Your task to perform on an android device: turn vacation reply on in the gmail app Image 0: 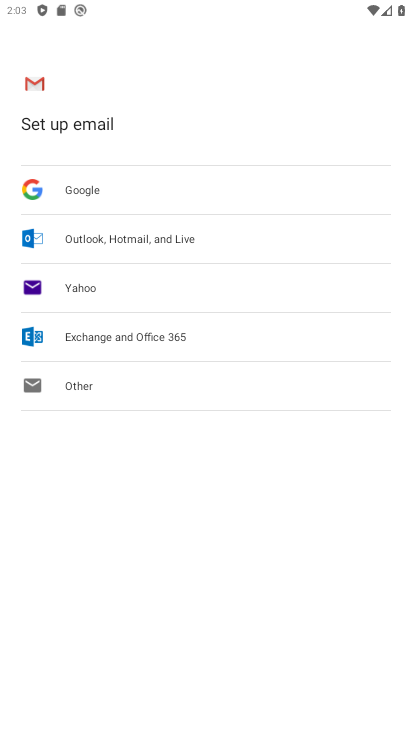
Step 0: press home button
Your task to perform on an android device: turn vacation reply on in the gmail app Image 1: 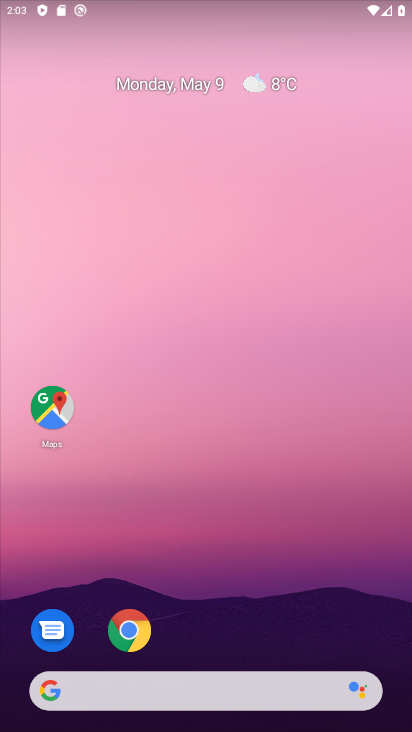
Step 1: drag from (268, 537) to (291, 150)
Your task to perform on an android device: turn vacation reply on in the gmail app Image 2: 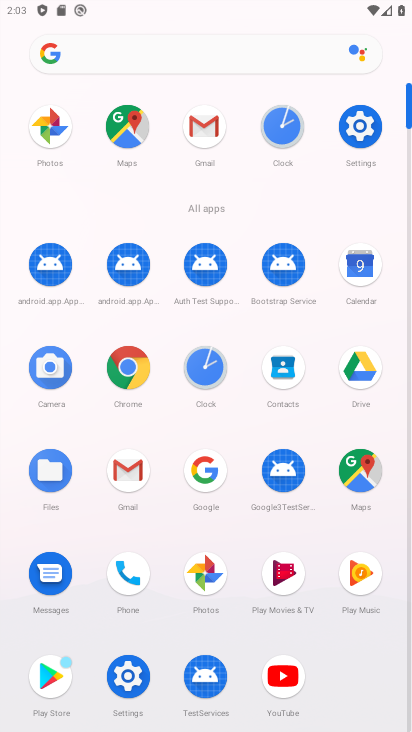
Step 2: click (129, 688)
Your task to perform on an android device: turn vacation reply on in the gmail app Image 3: 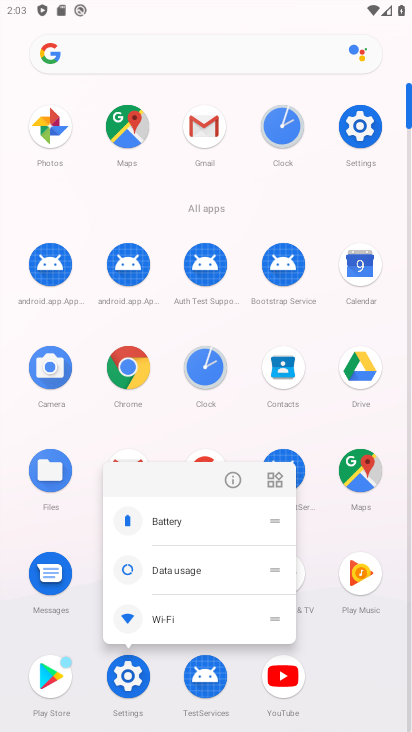
Step 3: click (124, 454)
Your task to perform on an android device: turn vacation reply on in the gmail app Image 4: 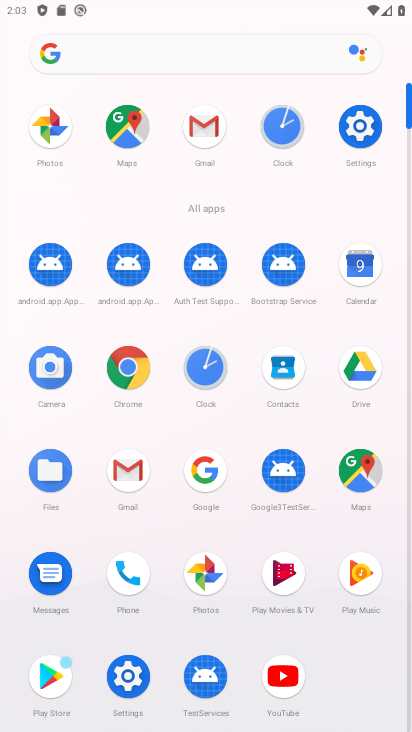
Step 4: click (133, 472)
Your task to perform on an android device: turn vacation reply on in the gmail app Image 5: 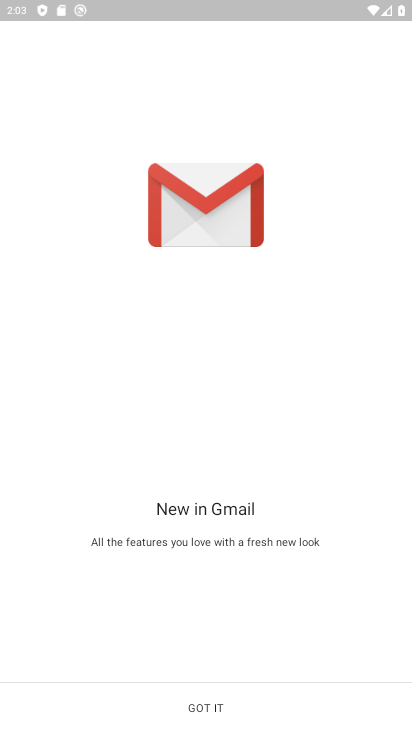
Step 5: click (241, 717)
Your task to perform on an android device: turn vacation reply on in the gmail app Image 6: 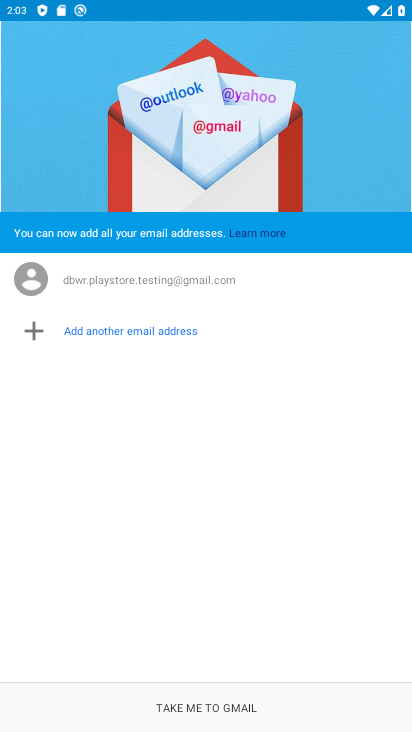
Step 6: click (217, 717)
Your task to perform on an android device: turn vacation reply on in the gmail app Image 7: 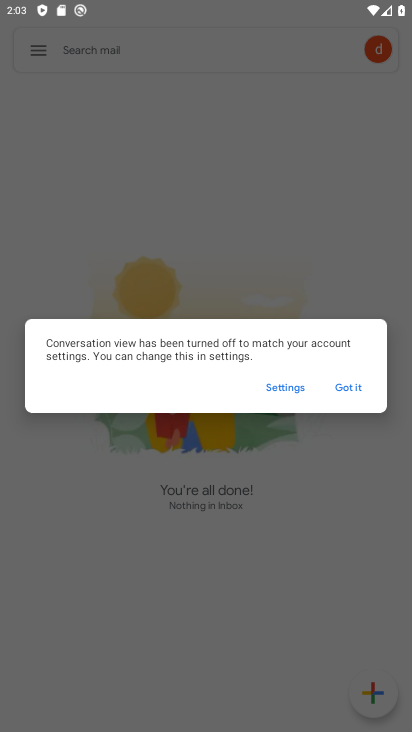
Step 7: click (358, 385)
Your task to perform on an android device: turn vacation reply on in the gmail app Image 8: 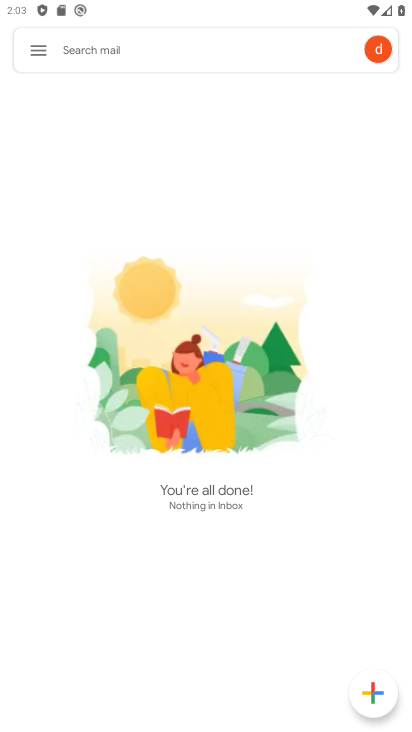
Step 8: click (35, 54)
Your task to perform on an android device: turn vacation reply on in the gmail app Image 9: 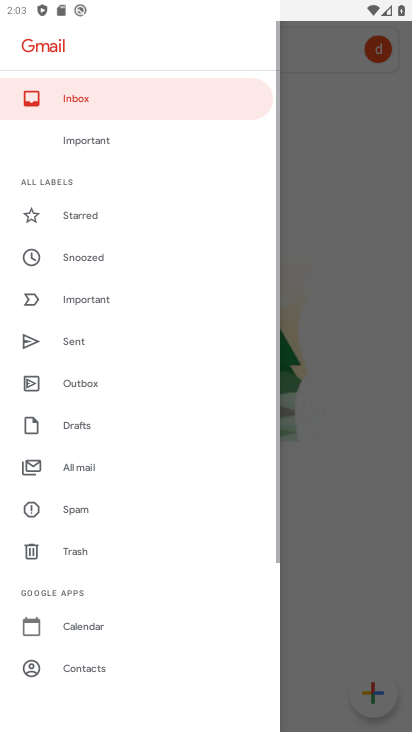
Step 9: drag from (117, 616) to (159, 380)
Your task to perform on an android device: turn vacation reply on in the gmail app Image 10: 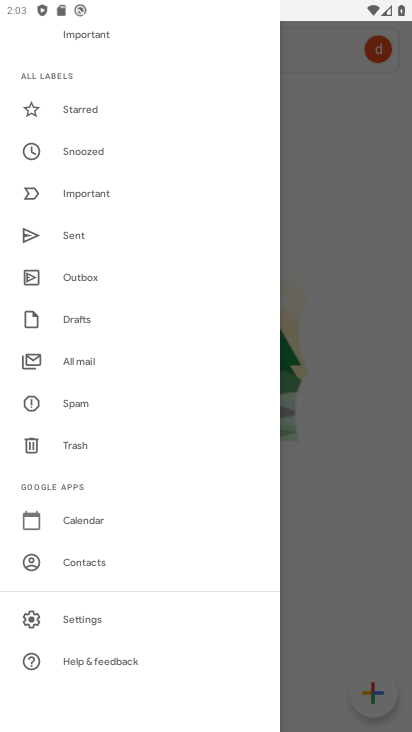
Step 10: click (108, 615)
Your task to perform on an android device: turn vacation reply on in the gmail app Image 11: 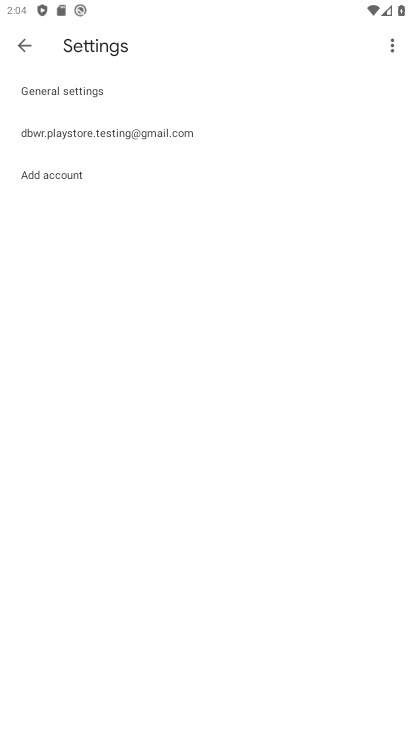
Step 11: click (179, 126)
Your task to perform on an android device: turn vacation reply on in the gmail app Image 12: 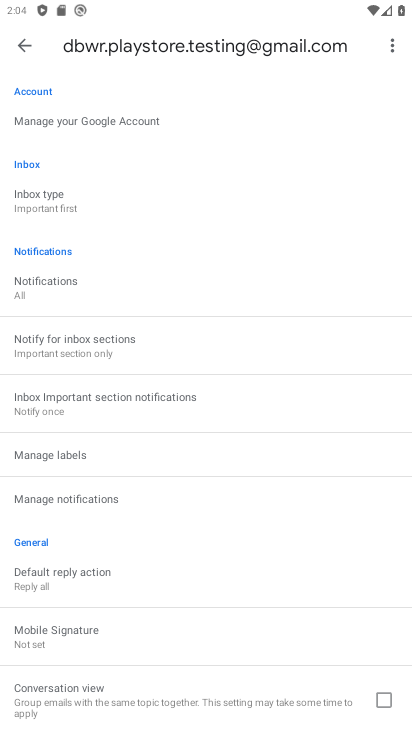
Step 12: drag from (119, 561) to (150, 421)
Your task to perform on an android device: turn vacation reply on in the gmail app Image 13: 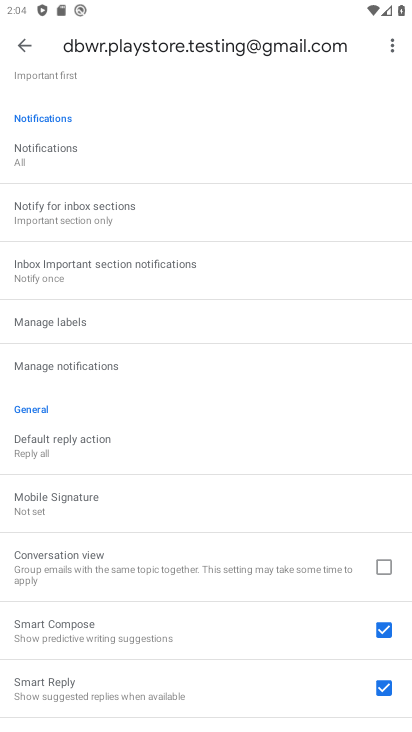
Step 13: drag from (168, 348) to (183, 602)
Your task to perform on an android device: turn vacation reply on in the gmail app Image 14: 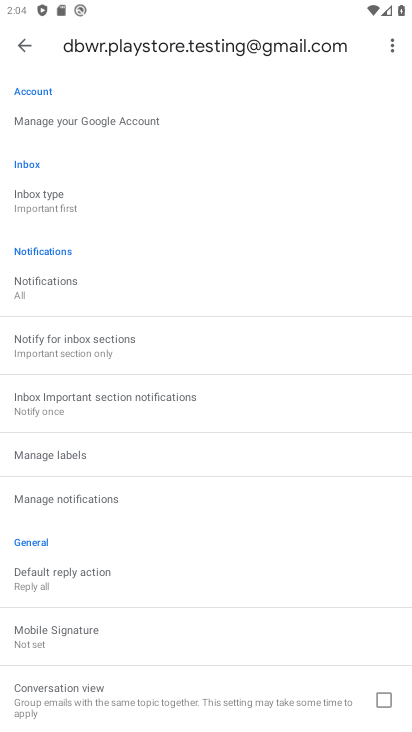
Step 14: drag from (137, 519) to (201, 111)
Your task to perform on an android device: turn vacation reply on in the gmail app Image 15: 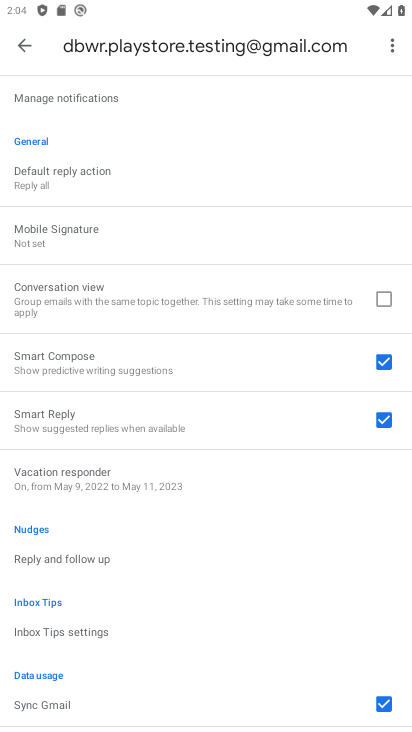
Step 15: drag from (206, 651) to (254, 250)
Your task to perform on an android device: turn vacation reply on in the gmail app Image 16: 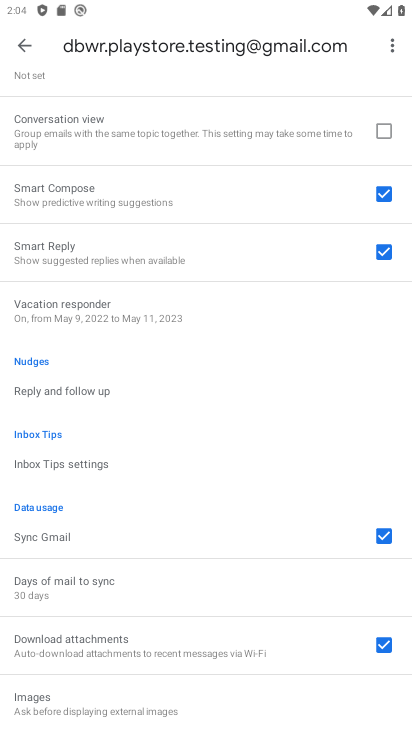
Step 16: drag from (166, 634) to (211, 384)
Your task to perform on an android device: turn vacation reply on in the gmail app Image 17: 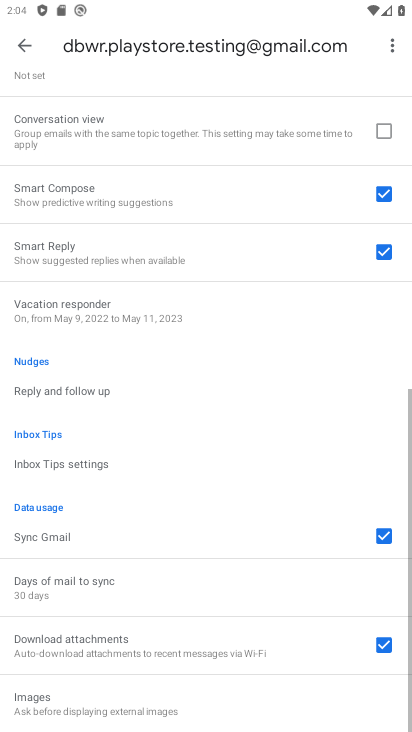
Step 17: click (134, 317)
Your task to perform on an android device: turn vacation reply on in the gmail app Image 18: 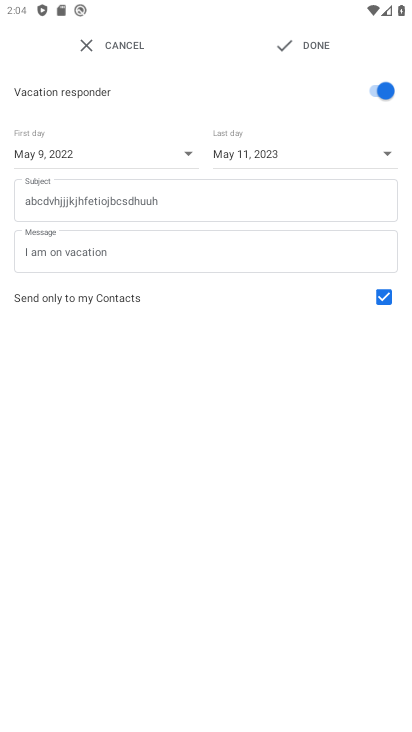
Step 18: task complete